Your task to perform on an android device: add a contact Image 0: 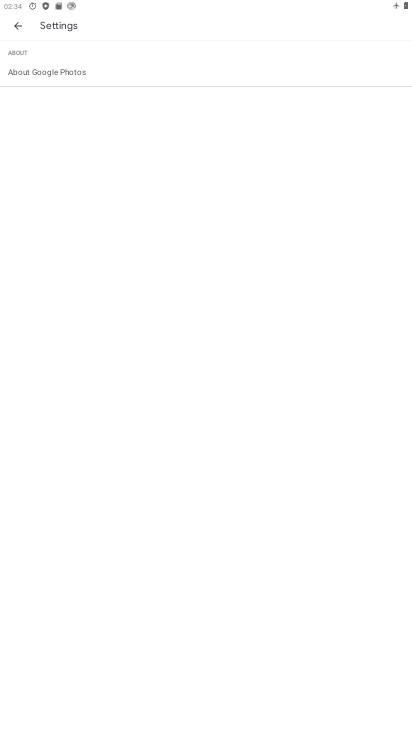
Step 0: press home button
Your task to perform on an android device: add a contact Image 1: 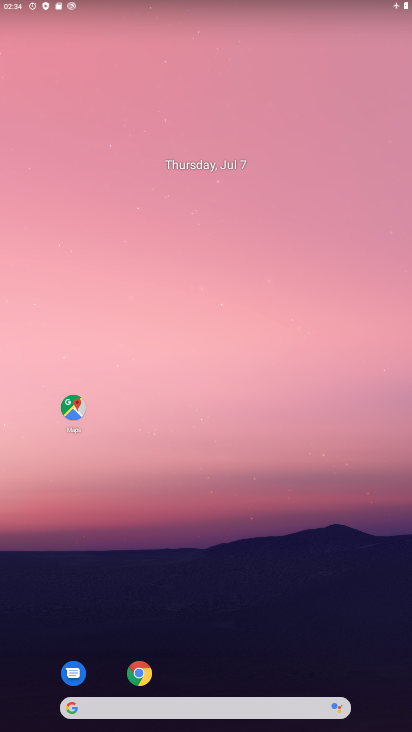
Step 1: drag from (190, 669) to (191, 316)
Your task to perform on an android device: add a contact Image 2: 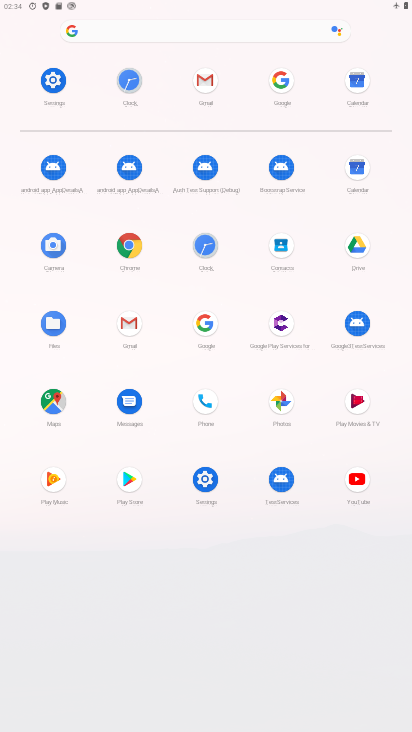
Step 2: click (287, 263)
Your task to perform on an android device: add a contact Image 3: 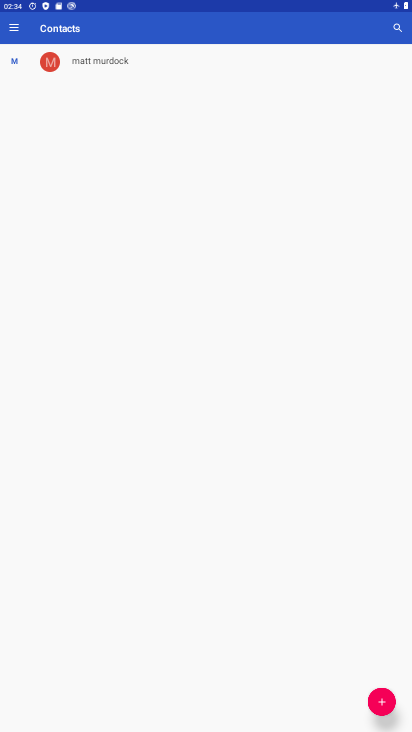
Step 3: click (381, 696)
Your task to perform on an android device: add a contact Image 4: 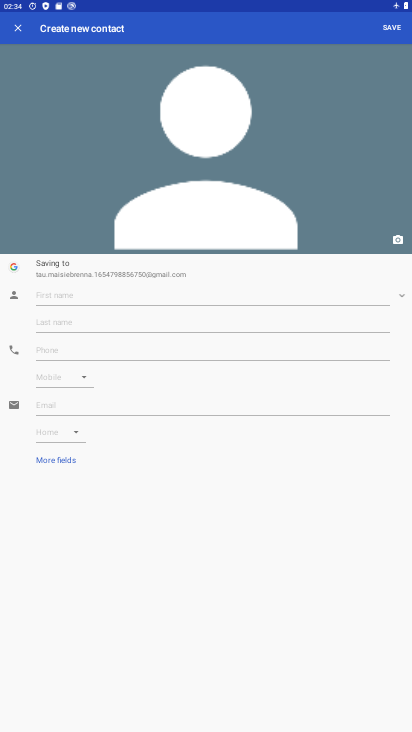
Step 4: type "gfjh"
Your task to perform on an android device: add a contact Image 5: 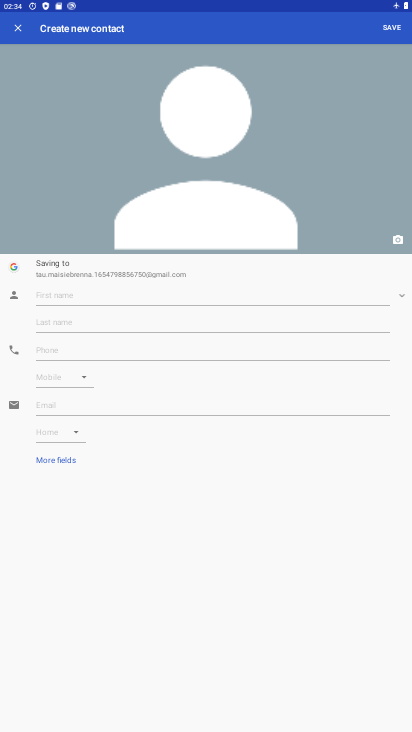
Step 5: click (93, 344)
Your task to perform on an android device: add a contact Image 6: 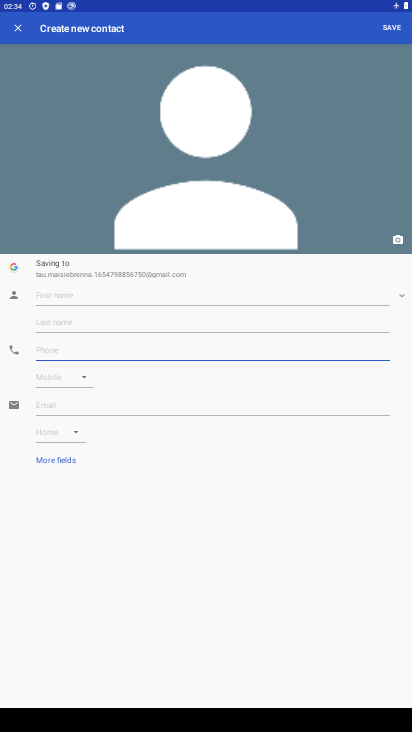
Step 6: type "98769879"
Your task to perform on an android device: add a contact Image 7: 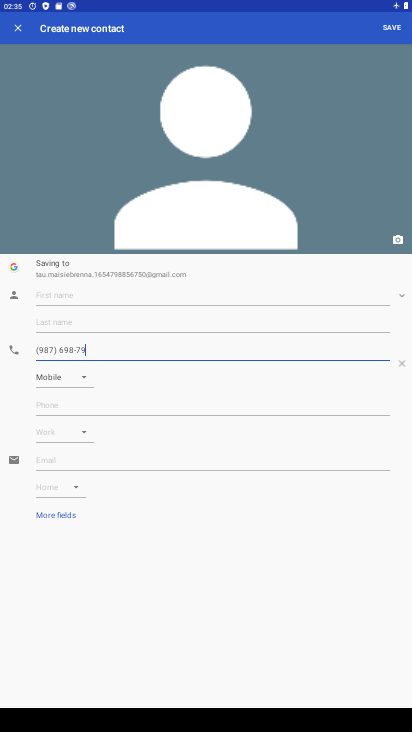
Step 7: click (88, 293)
Your task to perform on an android device: add a contact Image 8: 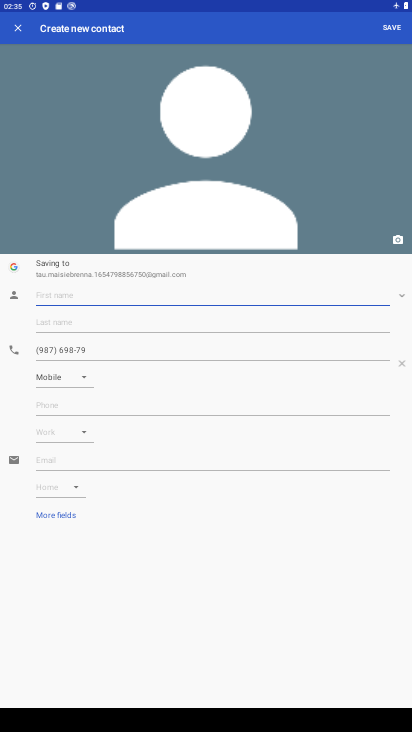
Step 8: type "fgj"
Your task to perform on an android device: add a contact Image 9: 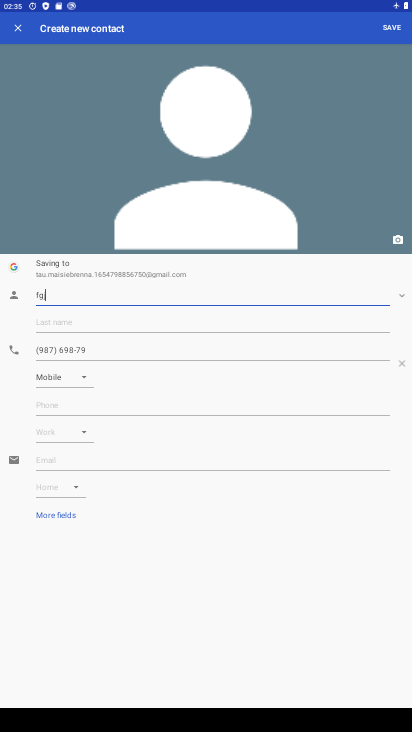
Step 9: click (393, 29)
Your task to perform on an android device: add a contact Image 10: 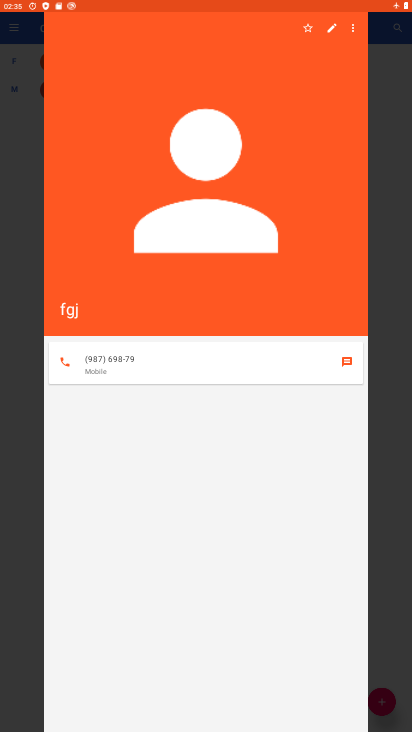
Step 10: task complete